Your task to perform on an android device: Go to Yahoo.com Image 0: 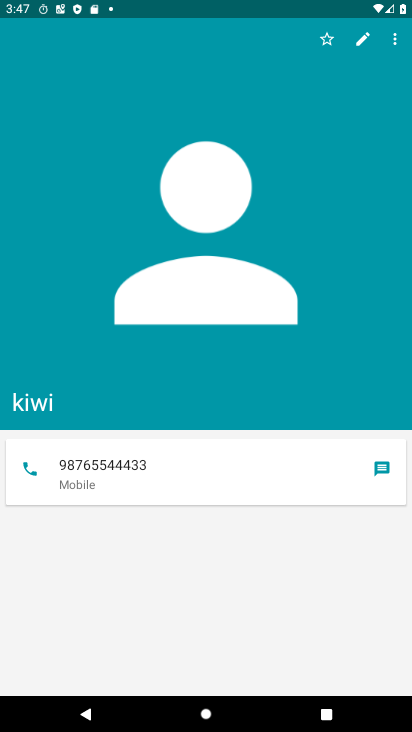
Step 0: press home button
Your task to perform on an android device: Go to Yahoo.com Image 1: 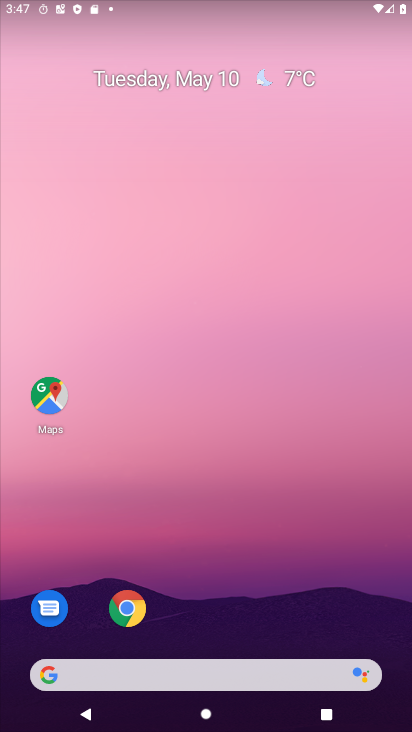
Step 1: click (130, 609)
Your task to perform on an android device: Go to Yahoo.com Image 2: 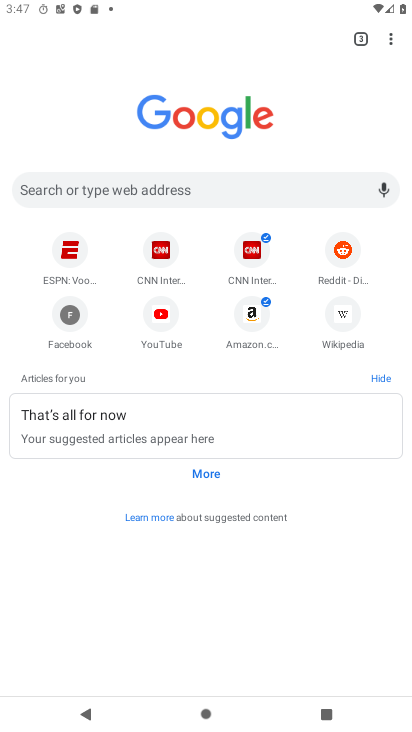
Step 2: click (151, 187)
Your task to perform on an android device: Go to Yahoo.com Image 3: 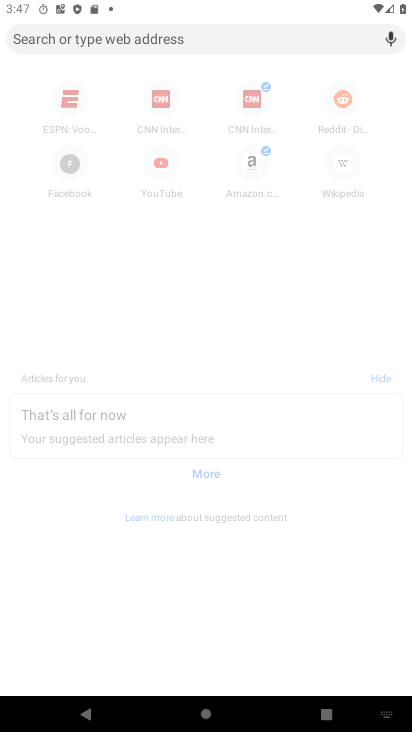
Step 3: type "yahoo.com"
Your task to perform on an android device: Go to Yahoo.com Image 4: 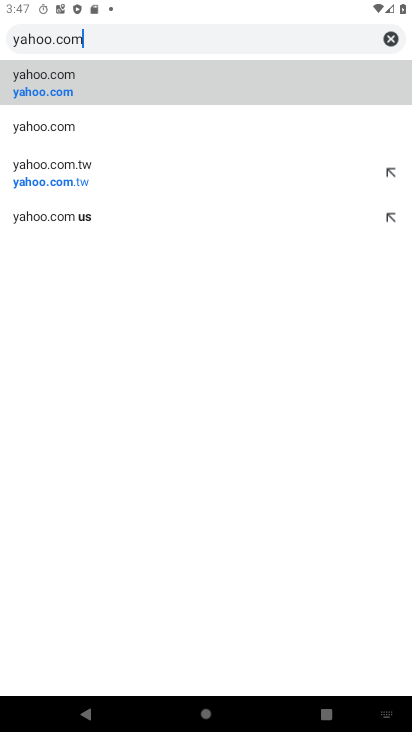
Step 4: click (33, 93)
Your task to perform on an android device: Go to Yahoo.com Image 5: 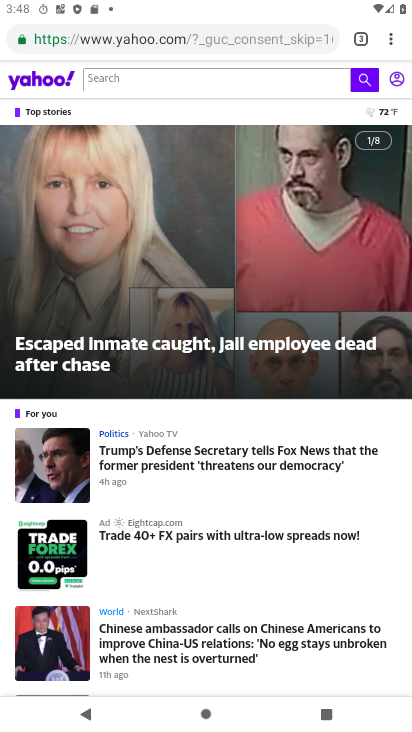
Step 5: task complete